Your task to perform on an android device: turn off smart reply in the gmail app Image 0: 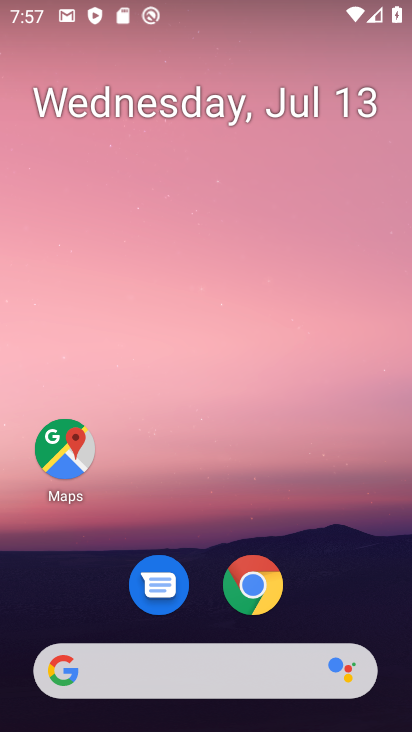
Step 0: drag from (298, 540) to (323, 37)
Your task to perform on an android device: turn off smart reply in the gmail app Image 1: 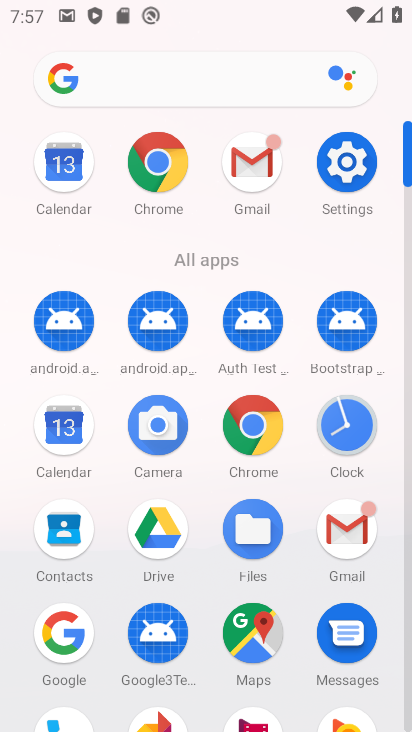
Step 1: click (249, 178)
Your task to perform on an android device: turn off smart reply in the gmail app Image 2: 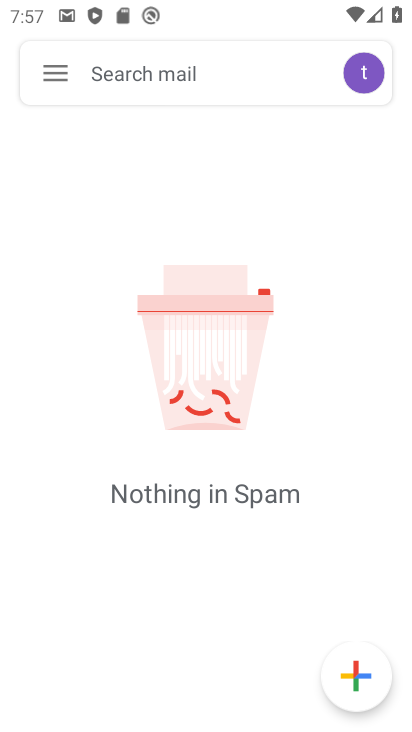
Step 2: click (63, 75)
Your task to perform on an android device: turn off smart reply in the gmail app Image 3: 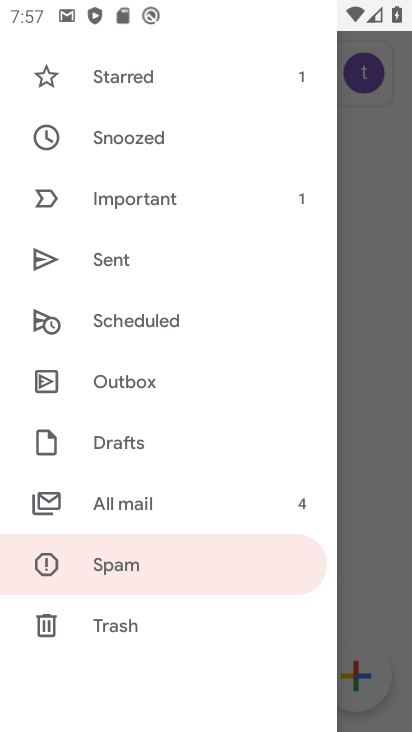
Step 3: drag from (160, 448) to (175, 101)
Your task to perform on an android device: turn off smart reply in the gmail app Image 4: 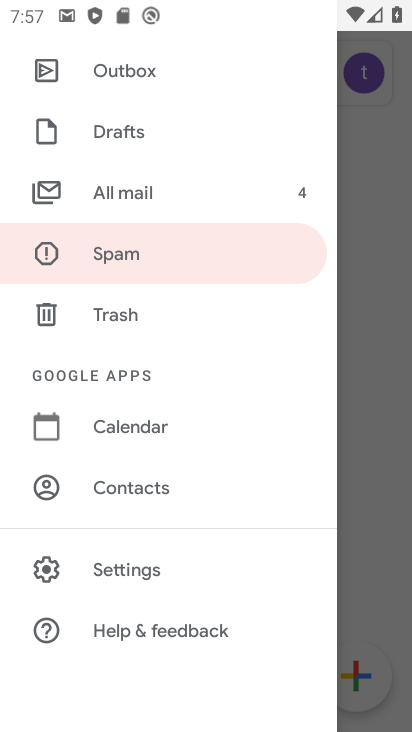
Step 4: click (160, 562)
Your task to perform on an android device: turn off smart reply in the gmail app Image 5: 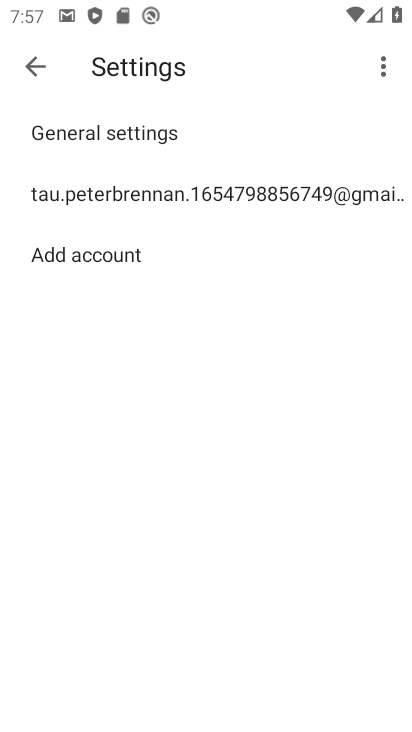
Step 5: click (261, 196)
Your task to perform on an android device: turn off smart reply in the gmail app Image 6: 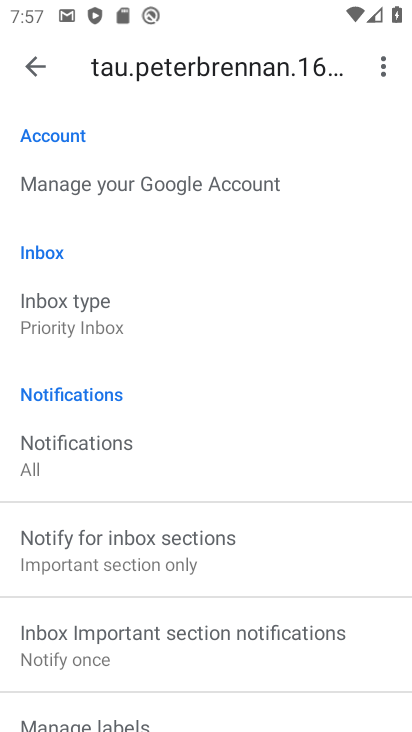
Step 6: drag from (262, 663) to (234, 215)
Your task to perform on an android device: turn off smart reply in the gmail app Image 7: 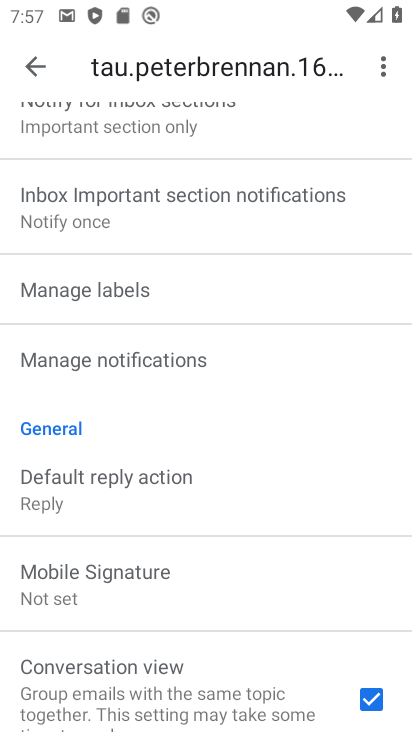
Step 7: drag from (260, 581) to (291, 261)
Your task to perform on an android device: turn off smart reply in the gmail app Image 8: 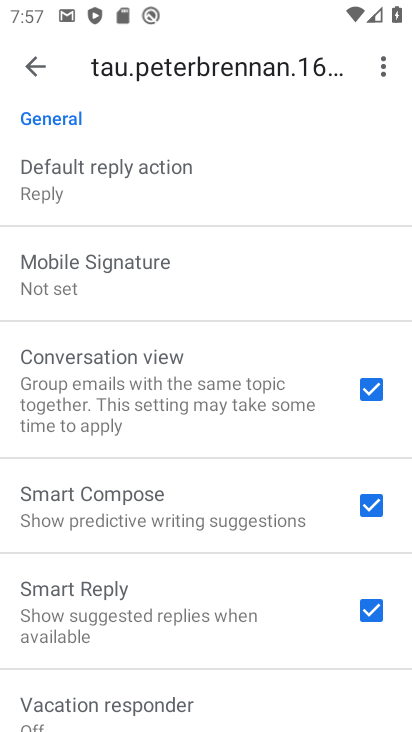
Step 8: click (372, 609)
Your task to perform on an android device: turn off smart reply in the gmail app Image 9: 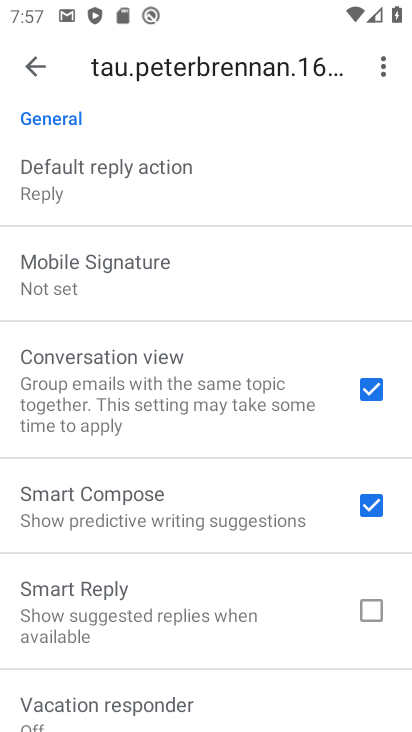
Step 9: task complete